Your task to perform on an android device: Search for pizza restaurants on Maps Image 0: 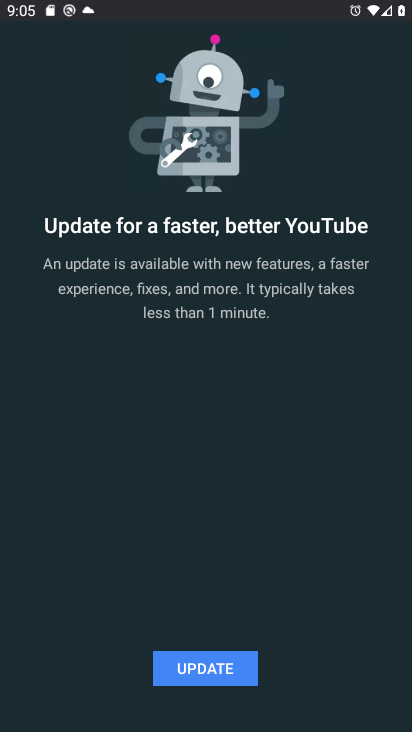
Step 0: press home button
Your task to perform on an android device: Search for pizza restaurants on Maps Image 1: 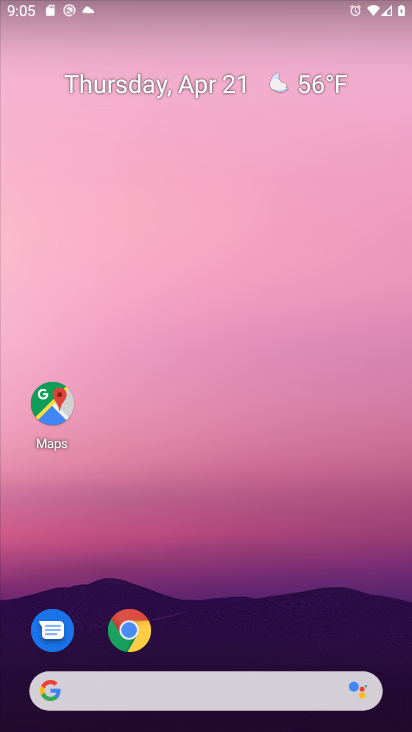
Step 1: click (51, 392)
Your task to perform on an android device: Search for pizza restaurants on Maps Image 2: 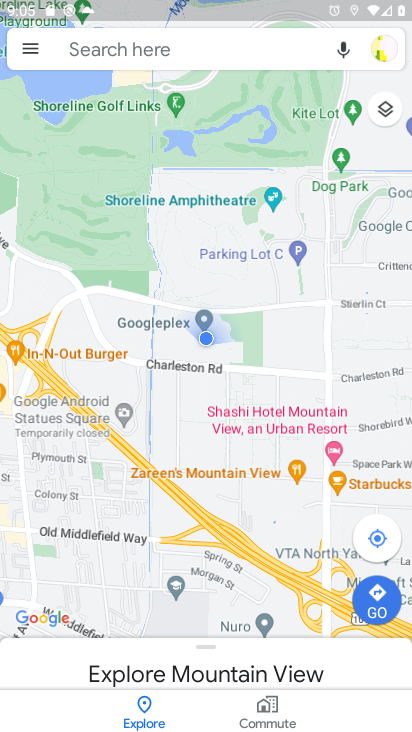
Step 2: click (135, 51)
Your task to perform on an android device: Search for pizza restaurants on Maps Image 3: 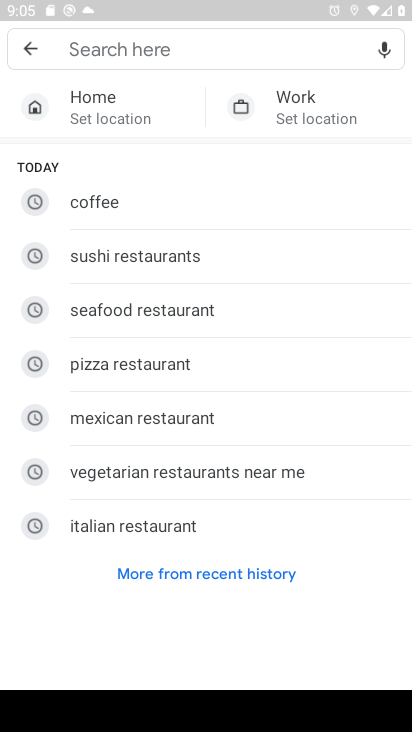
Step 3: type "pizza restaurants"
Your task to perform on an android device: Search for pizza restaurants on Maps Image 4: 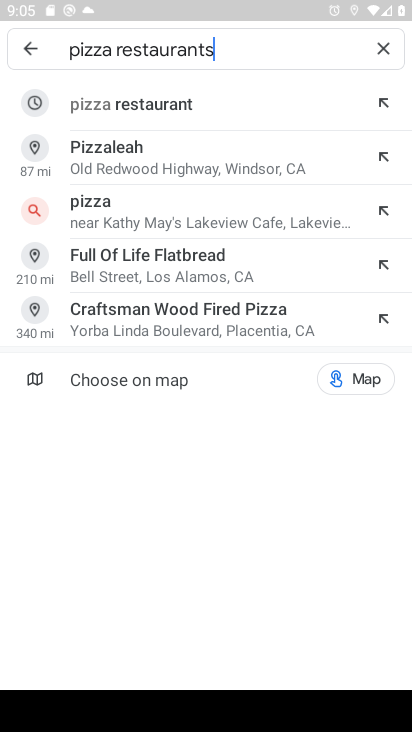
Step 4: click (160, 91)
Your task to perform on an android device: Search for pizza restaurants on Maps Image 5: 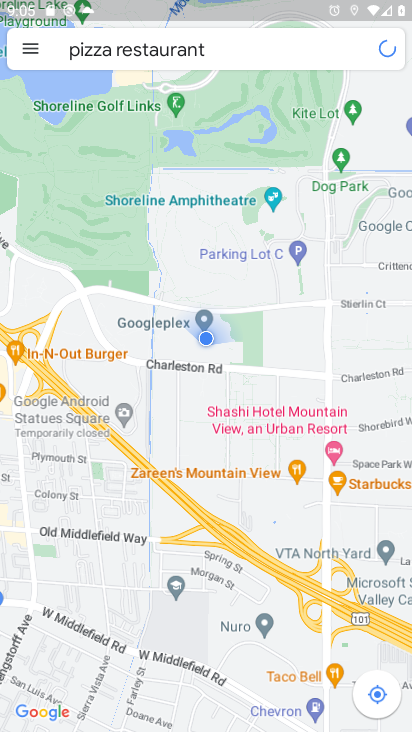
Step 5: task complete